Your task to perform on an android device: Open wifi settings Image 0: 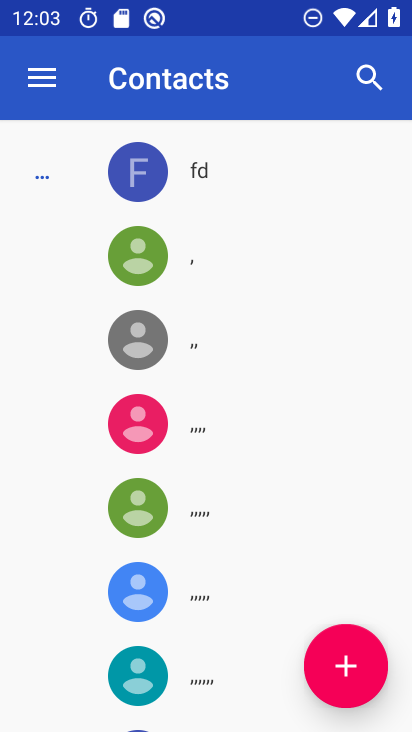
Step 0: press home button
Your task to perform on an android device: Open wifi settings Image 1: 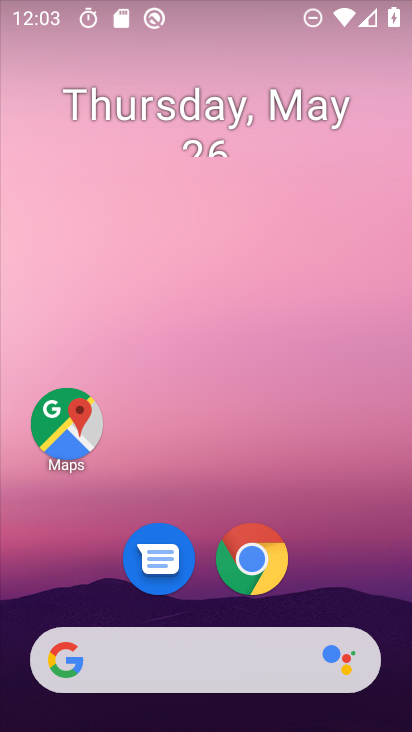
Step 1: drag from (323, 579) to (302, 241)
Your task to perform on an android device: Open wifi settings Image 2: 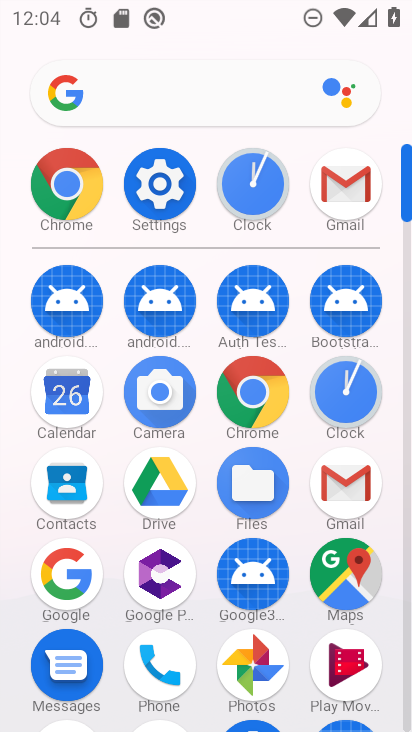
Step 2: click (144, 202)
Your task to perform on an android device: Open wifi settings Image 3: 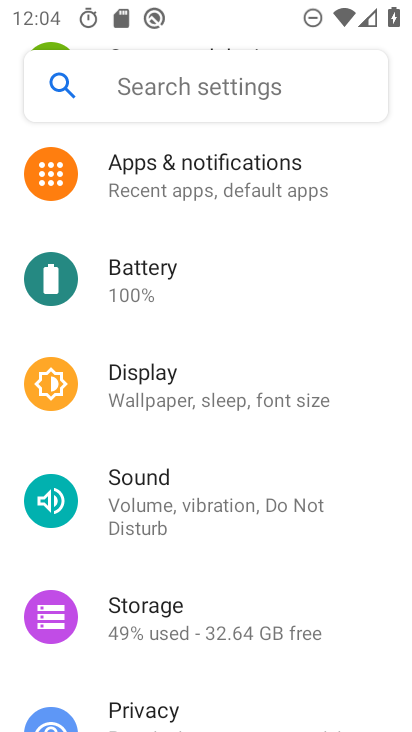
Step 3: drag from (242, 231) to (276, 272)
Your task to perform on an android device: Open wifi settings Image 4: 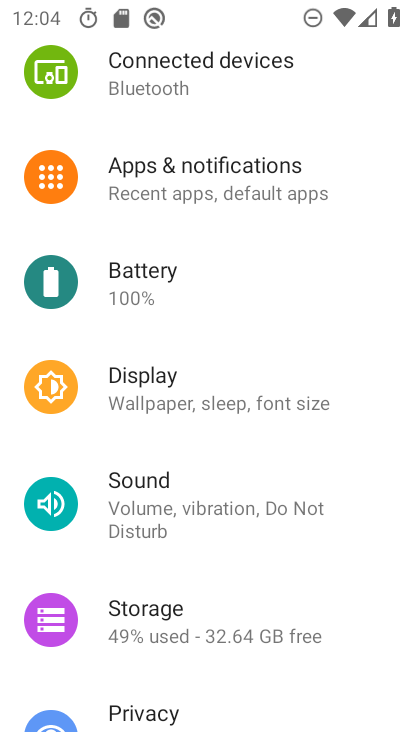
Step 4: drag from (272, 180) to (257, 612)
Your task to perform on an android device: Open wifi settings Image 5: 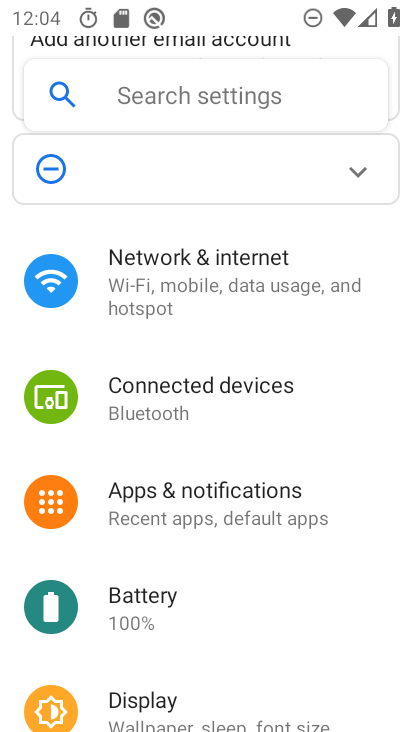
Step 5: click (206, 289)
Your task to perform on an android device: Open wifi settings Image 6: 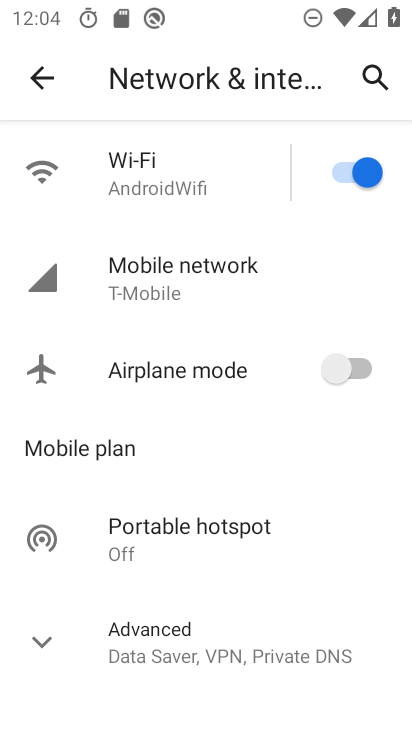
Step 6: task complete